Your task to perform on an android device: Find coffee shops on Maps Image 0: 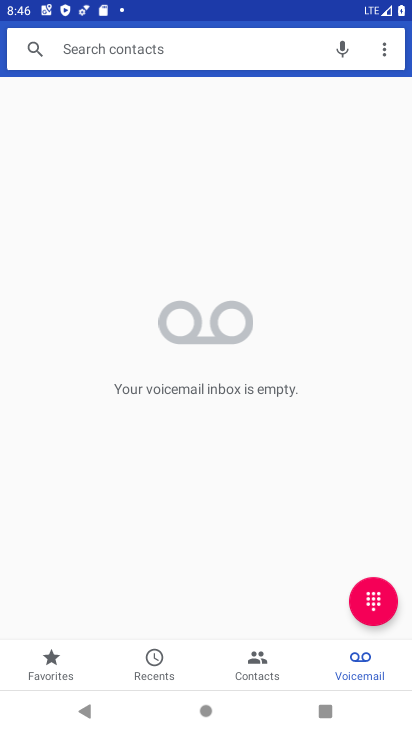
Step 0: press home button
Your task to perform on an android device: Find coffee shops on Maps Image 1: 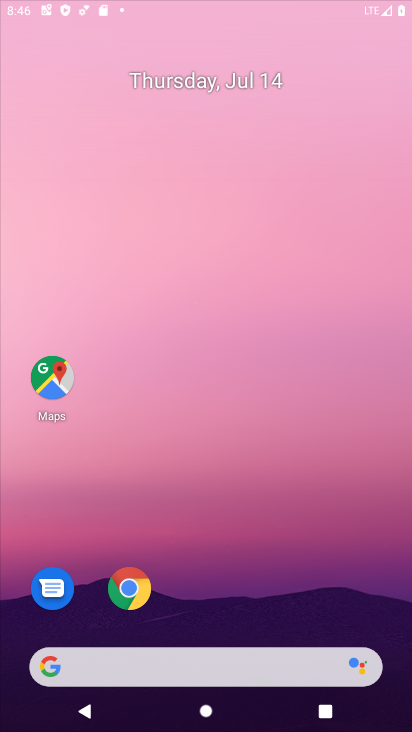
Step 1: drag from (388, 674) to (294, 81)
Your task to perform on an android device: Find coffee shops on Maps Image 2: 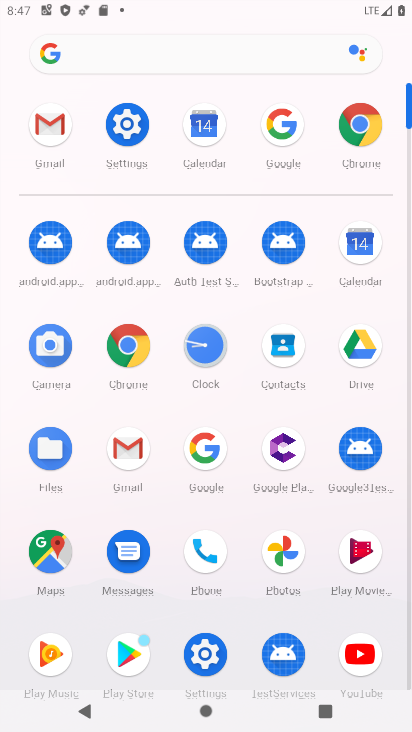
Step 2: click (58, 567)
Your task to perform on an android device: Find coffee shops on Maps Image 3: 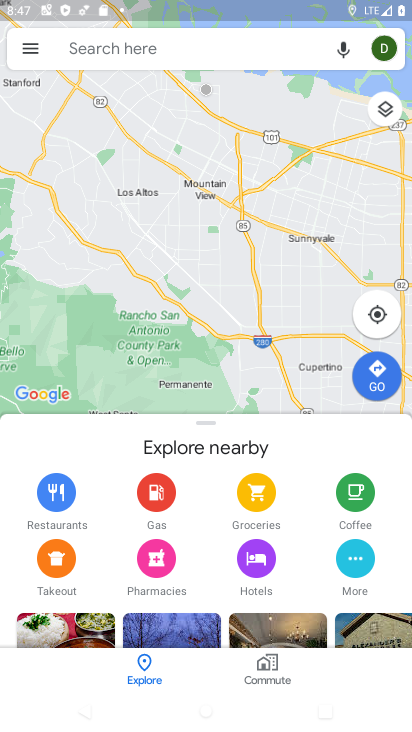
Step 3: click (172, 47)
Your task to perform on an android device: Find coffee shops on Maps Image 4: 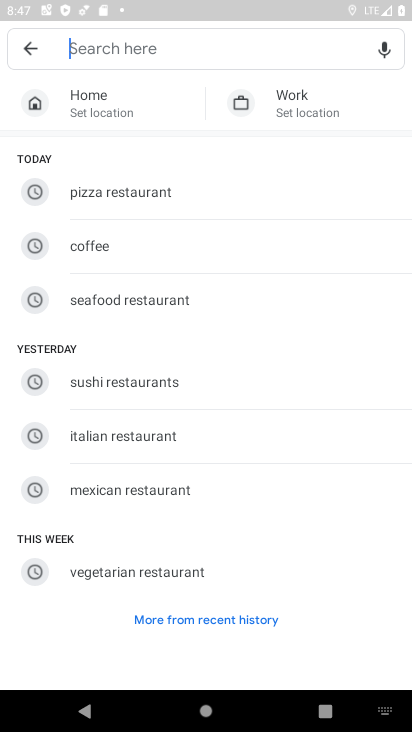
Step 4: click (72, 232)
Your task to perform on an android device: Find coffee shops on Maps Image 5: 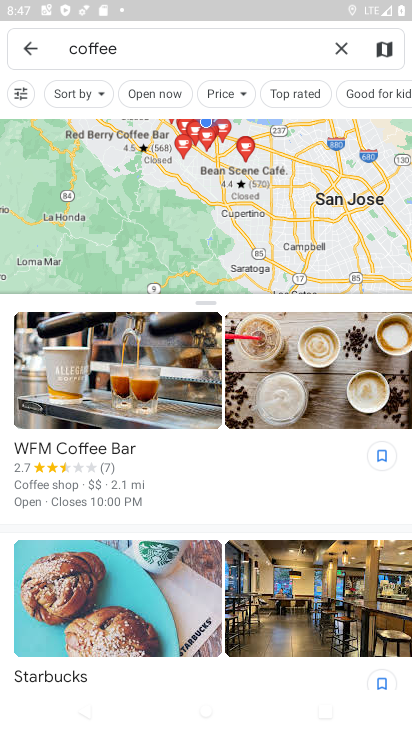
Step 5: task complete